Your task to perform on an android device: choose inbox layout in the gmail app Image 0: 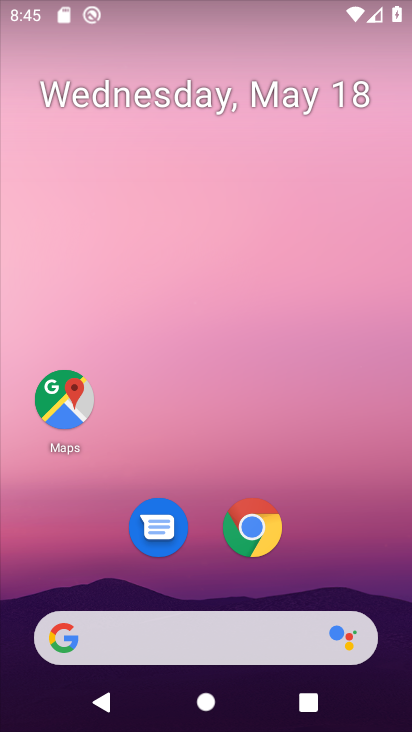
Step 0: drag from (312, 569) to (216, 54)
Your task to perform on an android device: choose inbox layout in the gmail app Image 1: 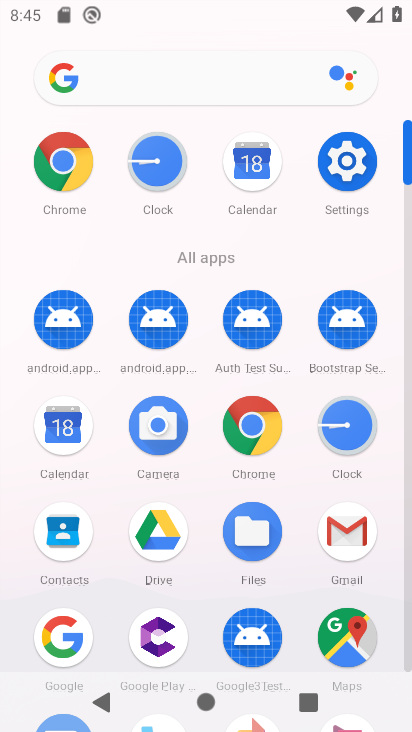
Step 1: click (348, 531)
Your task to perform on an android device: choose inbox layout in the gmail app Image 2: 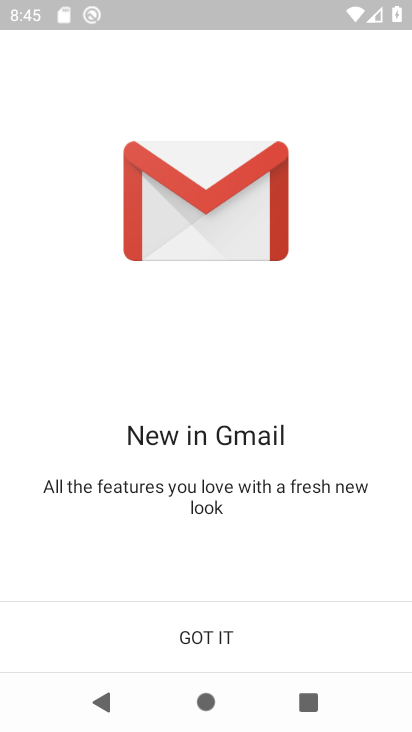
Step 2: click (202, 633)
Your task to perform on an android device: choose inbox layout in the gmail app Image 3: 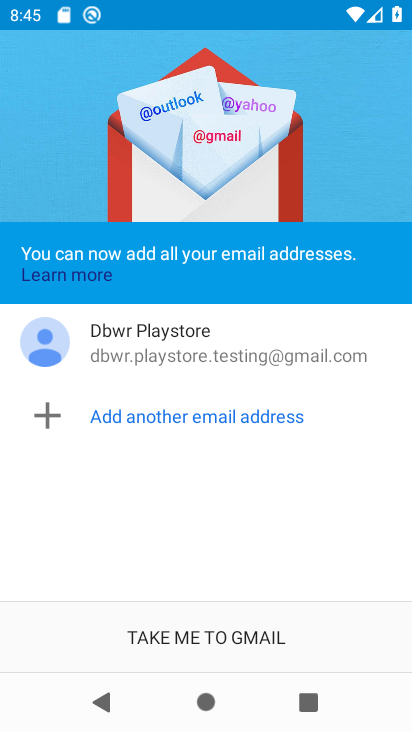
Step 3: click (200, 630)
Your task to perform on an android device: choose inbox layout in the gmail app Image 4: 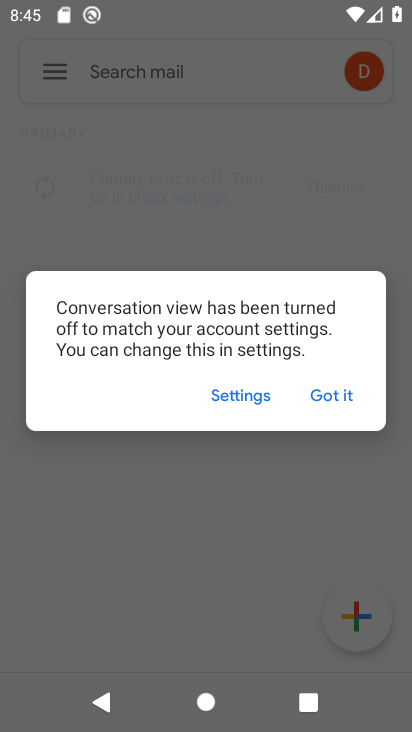
Step 4: click (338, 392)
Your task to perform on an android device: choose inbox layout in the gmail app Image 5: 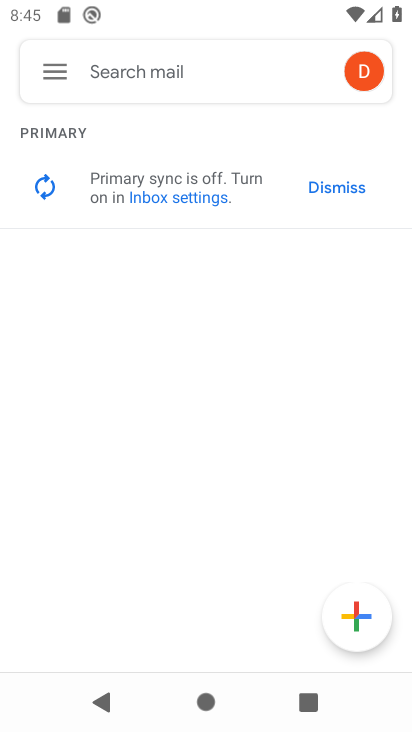
Step 5: click (60, 85)
Your task to perform on an android device: choose inbox layout in the gmail app Image 6: 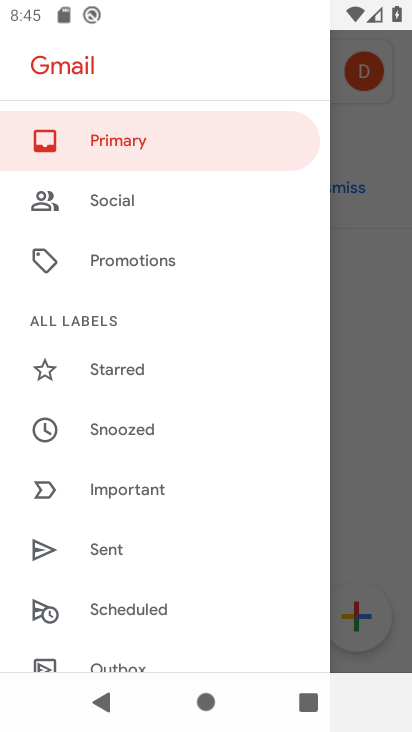
Step 6: click (134, 279)
Your task to perform on an android device: choose inbox layout in the gmail app Image 7: 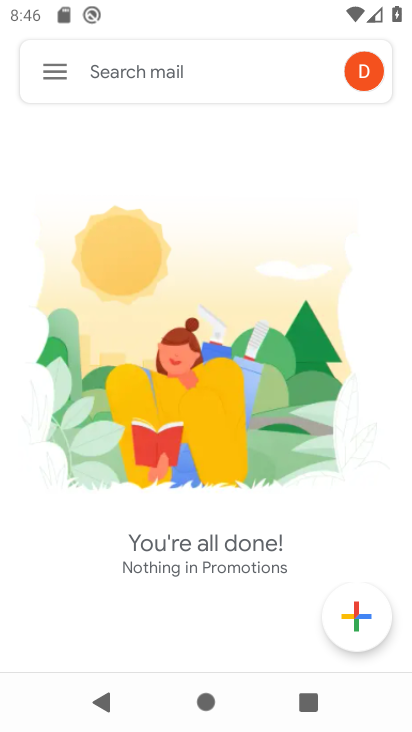
Step 7: click (52, 71)
Your task to perform on an android device: choose inbox layout in the gmail app Image 8: 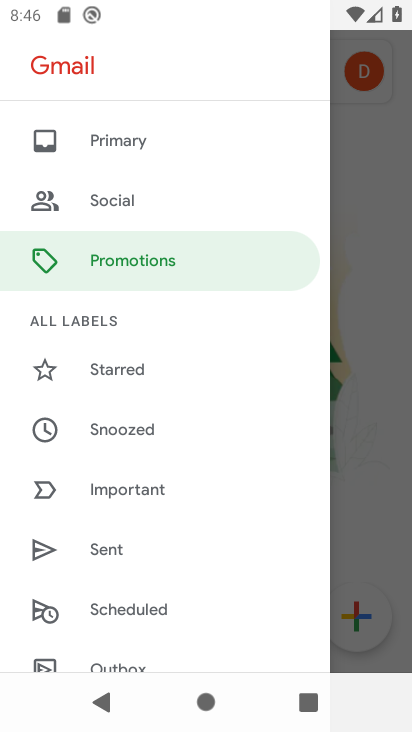
Step 8: drag from (151, 581) to (153, 426)
Your task to perform on an android device: choose inbox layout in the gmail app Image 9: 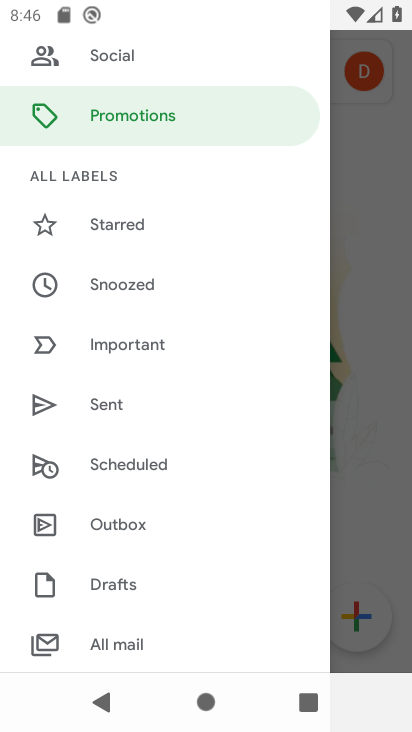
Step 9: drag from (125, 537) to (124, 410)
Your task to perform on an android device: choose inbox layout in the gmail app Image 10: 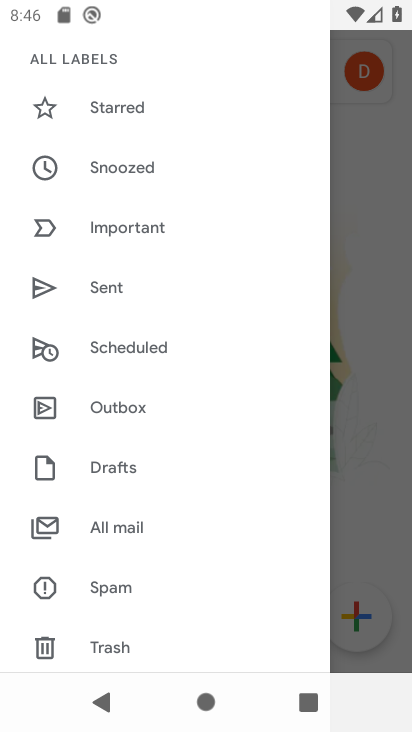
Step 10: drag from (115, 603) to (116, 470)
Your task to perform on an android device: choose inbox layout in the gmail app Image 11: 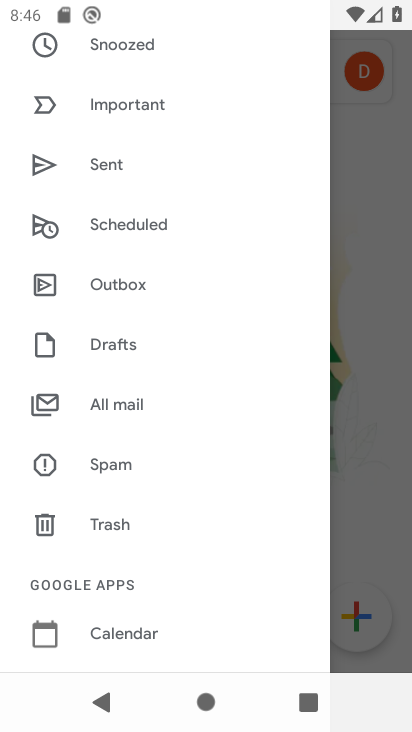
Step 11: drag from (110, 612) to (142, 505)
Your task to perform on an android device: choose inbox layout in the gmail app Image 12: 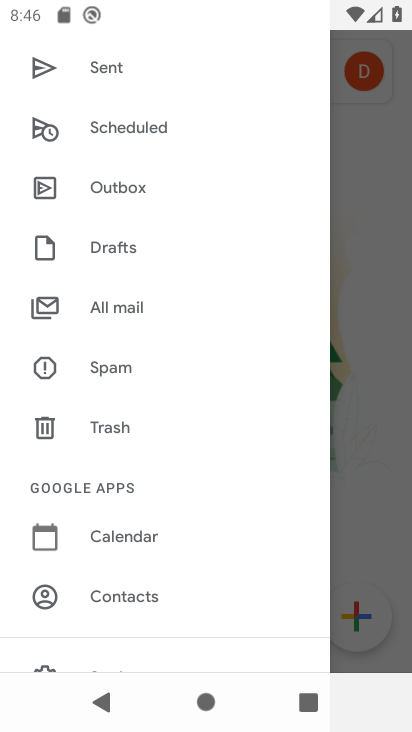
Step 12: drag from (129, 590) to (143, 421)
Your task to perform on an android device: choose inbox layout in the gmail app Image 13: 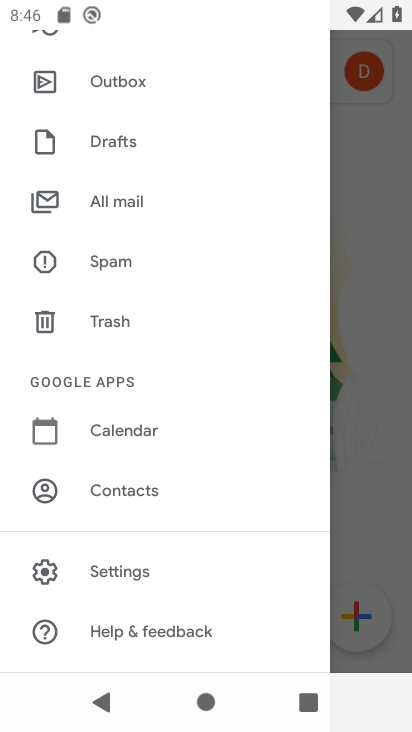
Step 13: click (104, 571)
Your task to perform on an android device: choose inbox layout in the gmail app Image 14: 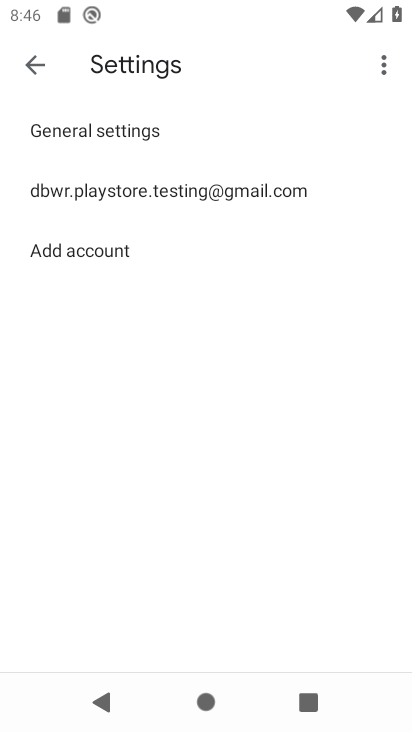
Step 14: click (217, 187)
Your task to perform on an android device: choose inbox layout in the gmail app Image 15: 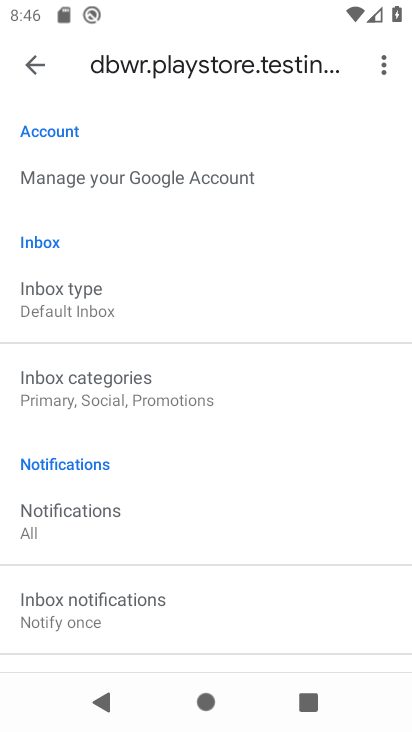
Step 15: click (61, 304)
Your task to perform on an android device: choose inbox layout in the gmail app Image 16: 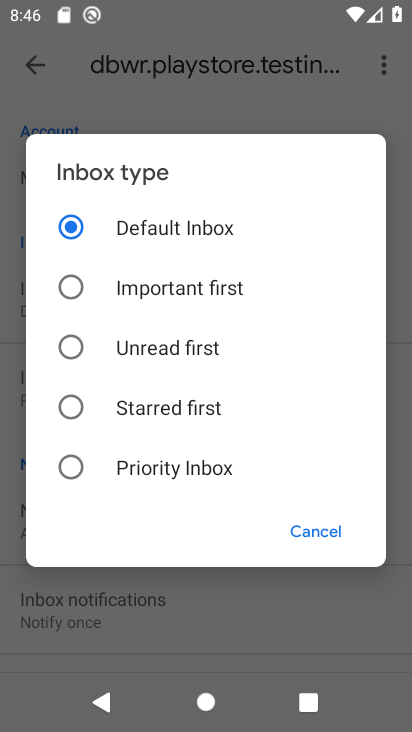
Step 16: click (72, 467)
Your task to perform on an android device: choose inbox layout in the gmail app Image 17: 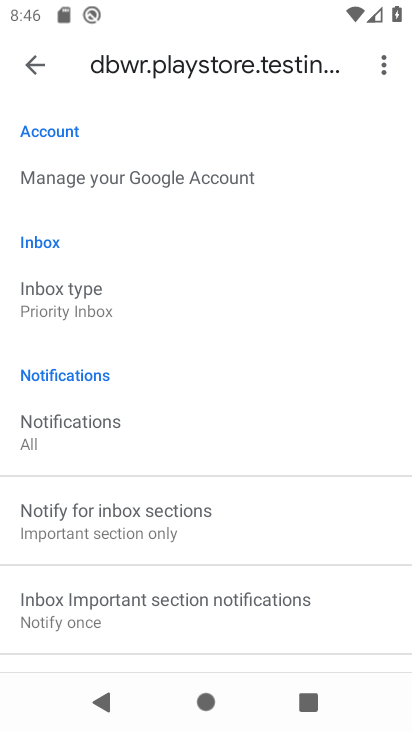
Step 17: task complete